Your task to perform on an android device: Set the phone to "Do not disturb". Image 0: 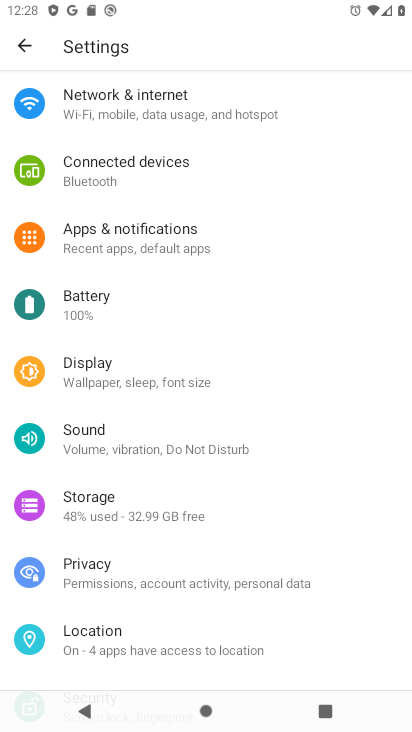
Step 0: click (243, 448)
Your task to perform on an android device: Set the phone to "Do not disturb". Image 1: 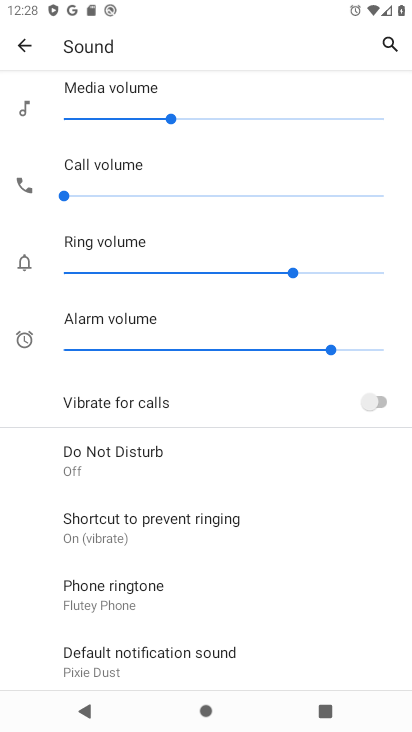
Step 1: click (251, 467)
Your task to perform on an android device: Set the phone to "Do not disturb". Image 2: 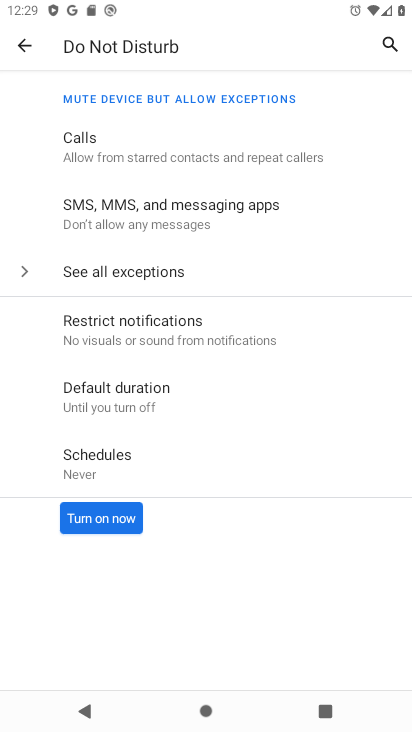
Step 2: click (118, 516)
Your task to perform on an android device: Set the phone to "Do not disturb". Image 3: 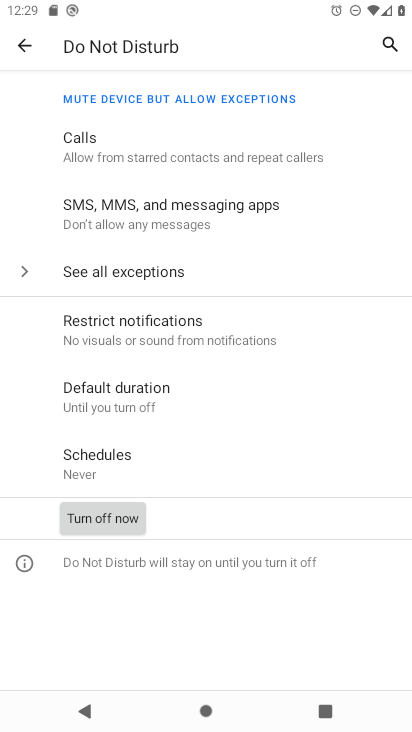
Step 3: task complete